Your task to perform on an android device: allow cookies in the chrome app Image 0: 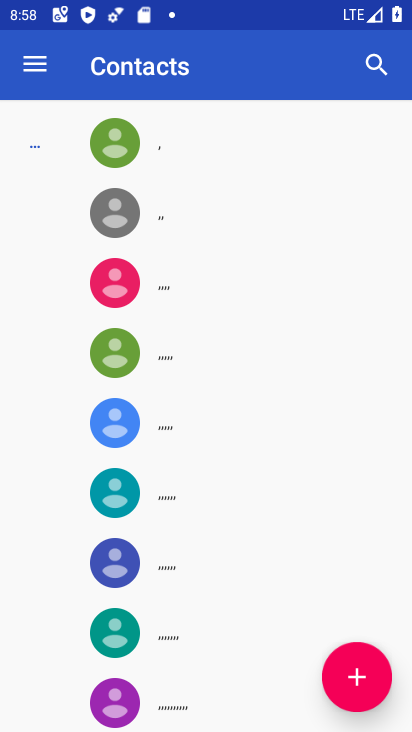
Step 0: press back button
Your task to perform on an android device: allow cookies in the chrome app Image 1: 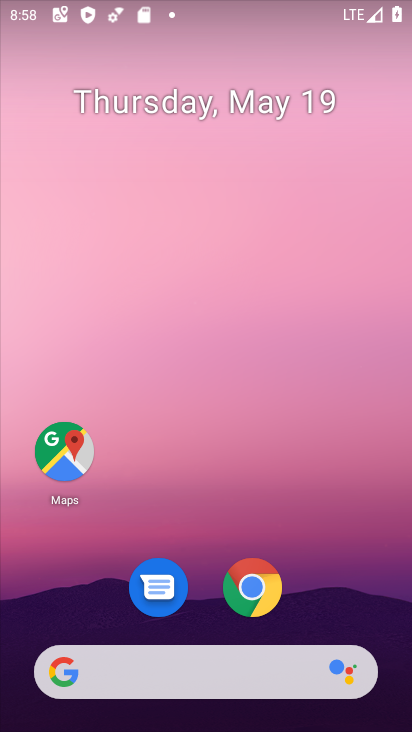
Step 1: drag from (367, 481) to (297, 45)
Your task to perform on an android device: allow cookies in the chrome app Image 2: 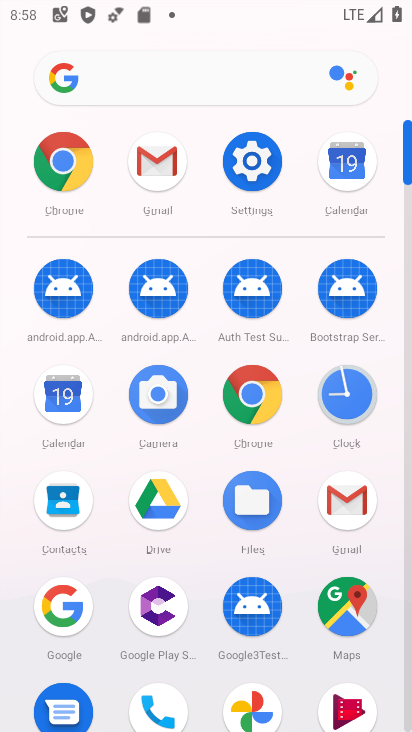
Step 2: drag from (16, 540) to (11, 167)
Your task to perform on an android device: allow cookies in the chrome app Image 3: 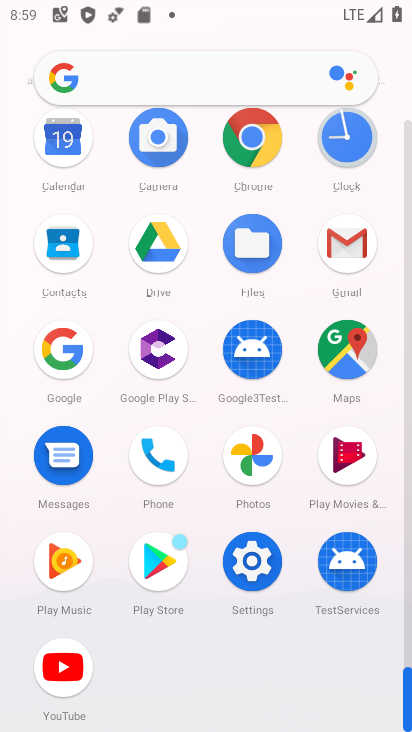
Step 3: click (252, 132)
Your task to perform on an android device: allow cookies in the chrome app Image 4: 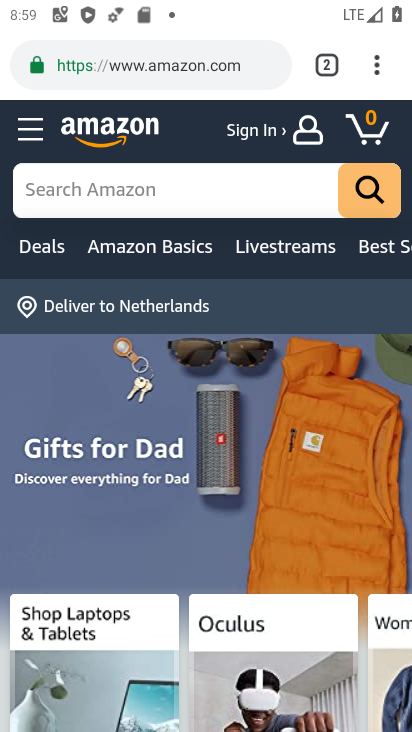
Step 4: drag from (375, 68) to (192, 620)
Your task to perform on an android device: allow cookies in the chrome app Image 5: 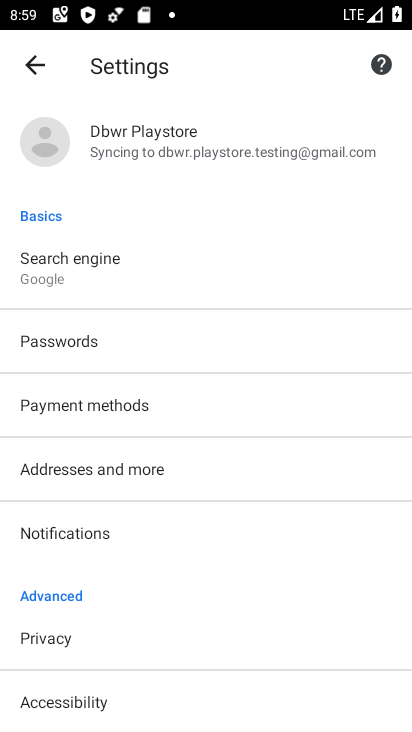
Step 5: drag from (222, 569) to (220, 218)
Your task to perform on an android device: allow cookies in the chrome app Image 6: 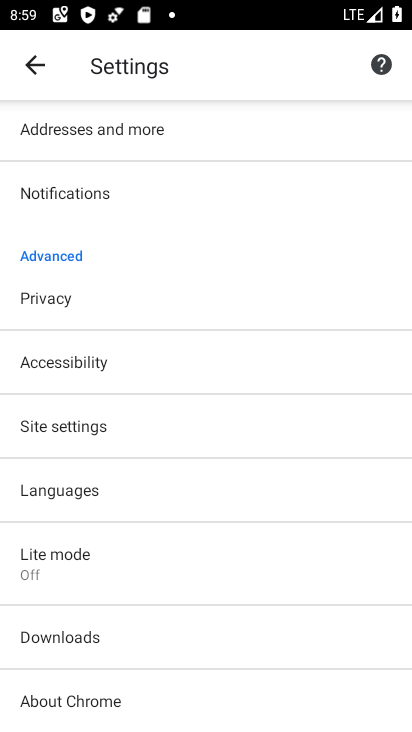
Step 6: drag from (172, 627) to (194, 244)
Your task to perform on an android device: allow cookies in the chrome app Image 7: 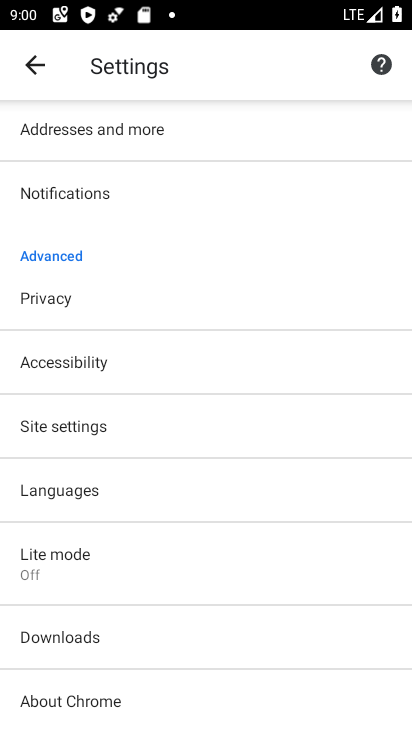
Step 7: click (65, 419)
Your task to perform on an android device: allow cookies in the chrome app Image 8: 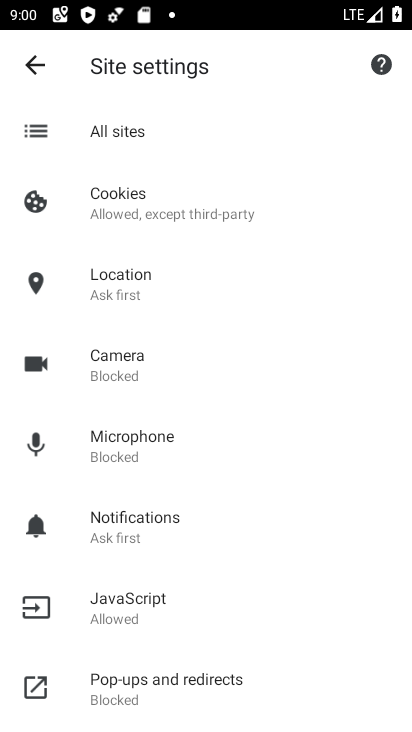
Step 8: click (162, 222)
Your task to perform on an android device: allow cookies in the chrome app Image 9: 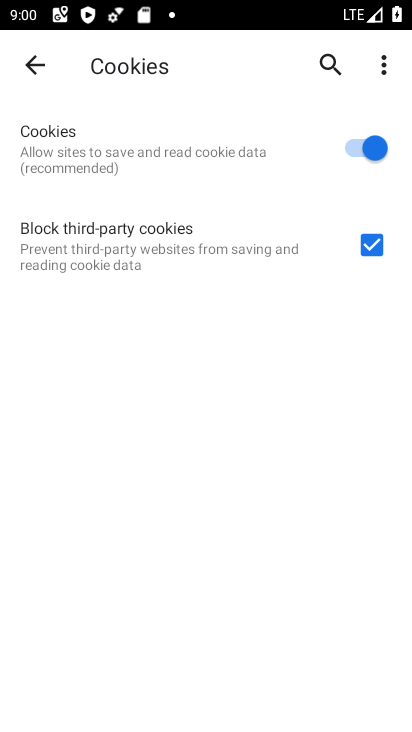
Step 9: task complete